Your task to perform on an android device: delete a single message in the gmail app Image 0: 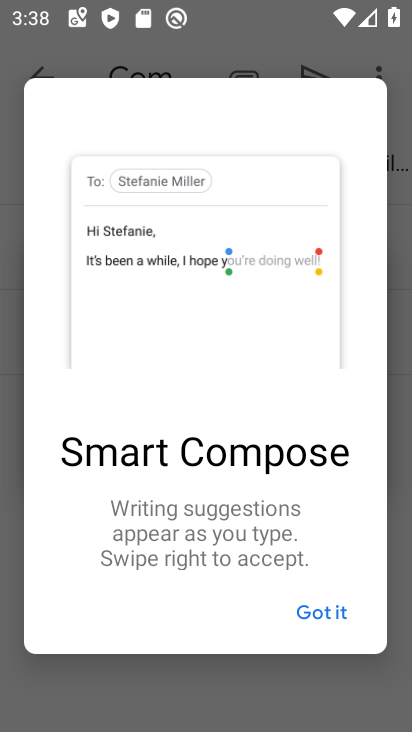
Step 0: press home button
Your task to perform on an android device: delete a single message in the gmail app Image 1: 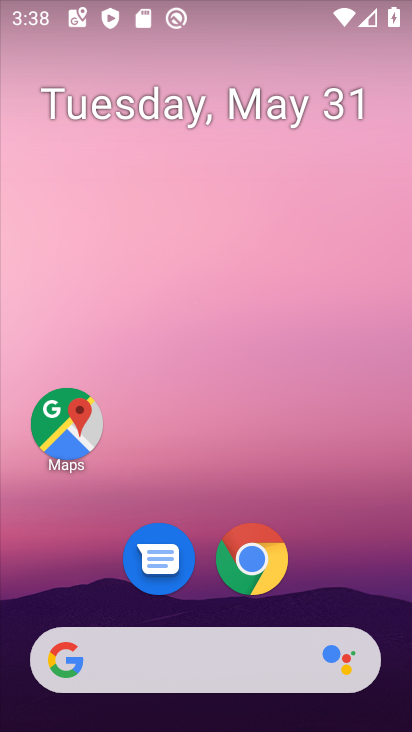
Step 1: drag from (205, 717) to (215, 233)
Your task to perform on an android device: delete a single message in the gmail app Image 2: 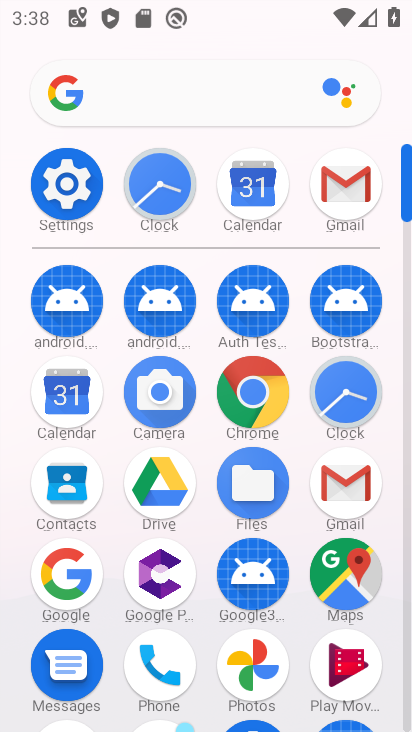
Step 2: click (350, 488)
Your task to perform on an android device: delete a single message in the gmail app Image 3: 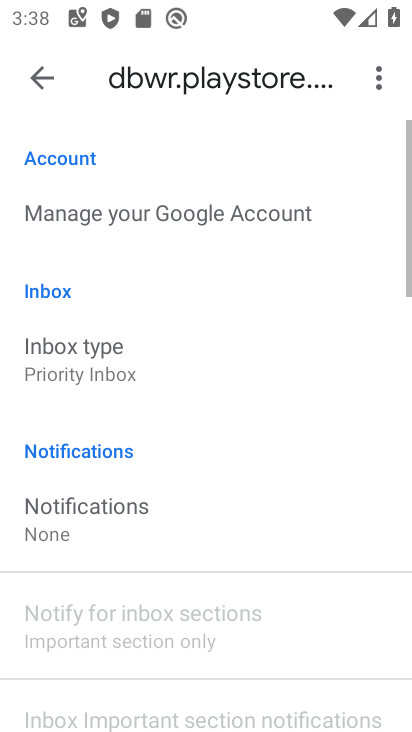
Step 3: click (40, 75)
Your task to perform on an android device: delete a single message in the gmail app Image 4: 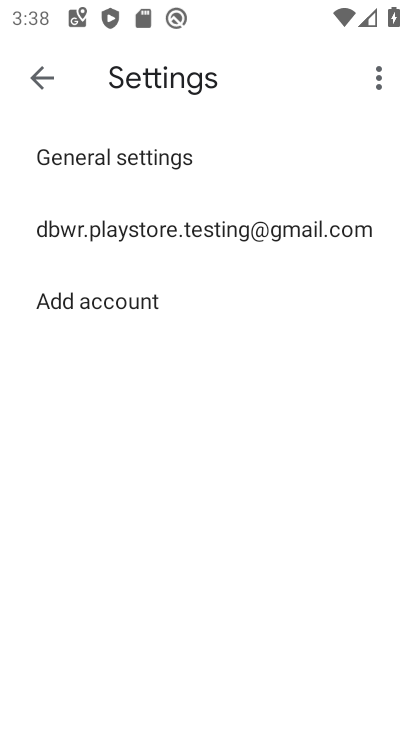
Step 4: click (46, 77)
Your task to perform on an android device: delete a single message in the gmail app Image 5: 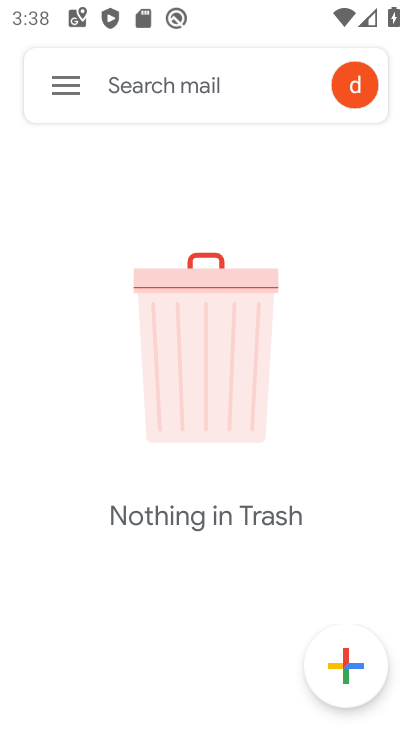
Step 5: click (62, 85)
Your task to perform on an android device: delete a single message in the gmail app Image 6: 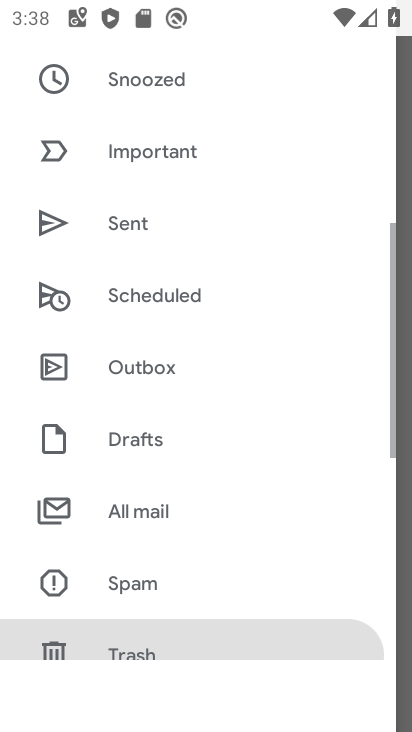
Step 6: drag from (153, 124) to (168, 480)
Your task to perform on an android device: delete a single message in the gmail app Image 7: 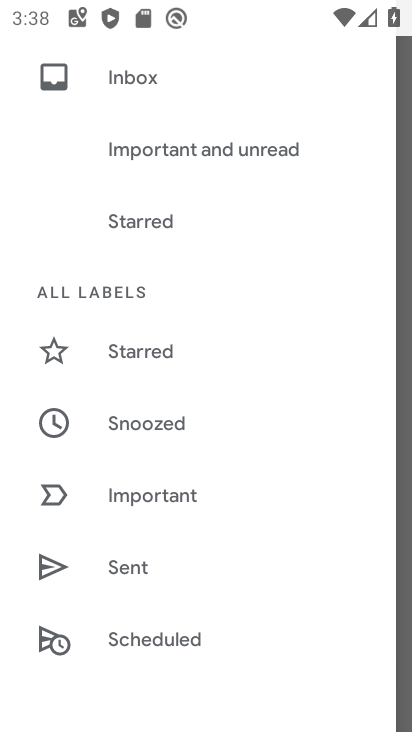
Step 7: drag from (303, 119) to (289, 509)
Your task to perform on an android device: delete a single message in the gmail app Image 8: 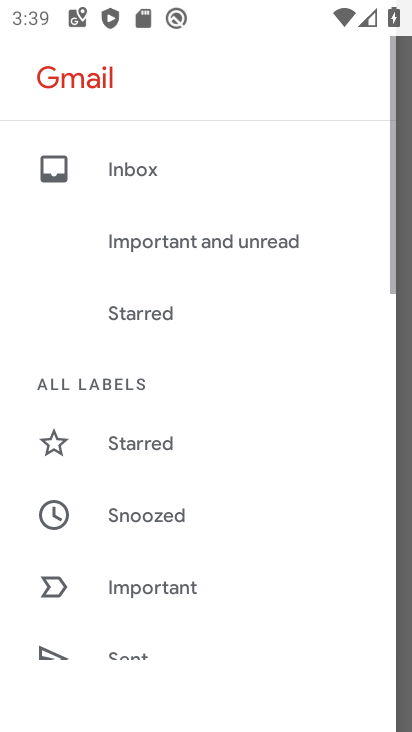
Step 8: click (127, 172)
Your task to perform on an android device: delete a single message in the gmail app Image 9: 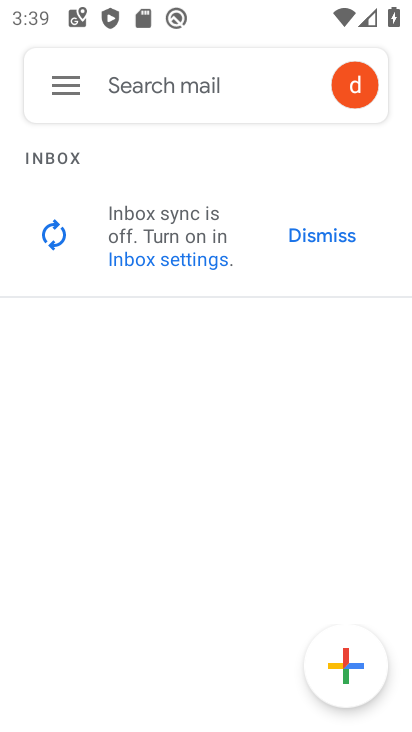
Step 9: task complete